Your task to perform on an android device: turn on translation in the chrome app Image 0: 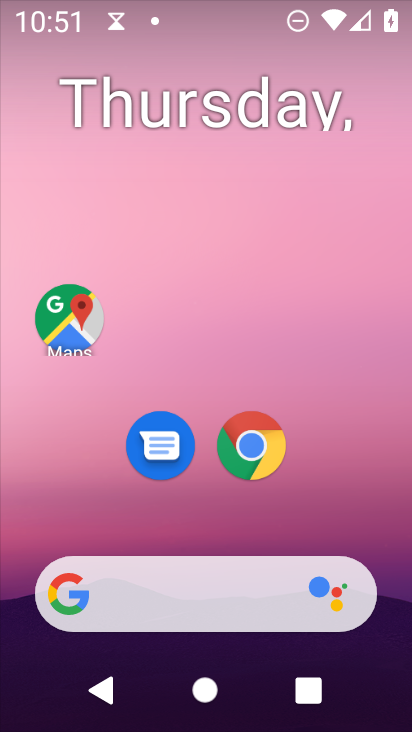
Step 0: click (244, 454)
Your task to perform on an android device: turn on translation in the chrome app Image 1: 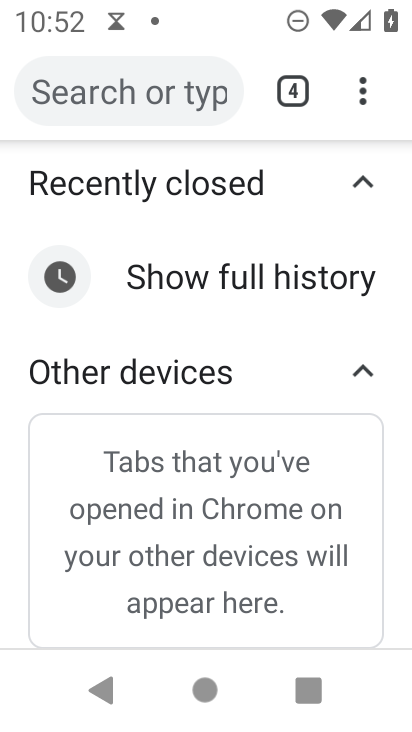
Step 1: click (362, 104)
Your task to perform on an android device: turn on translation in the chrome app Image 2: 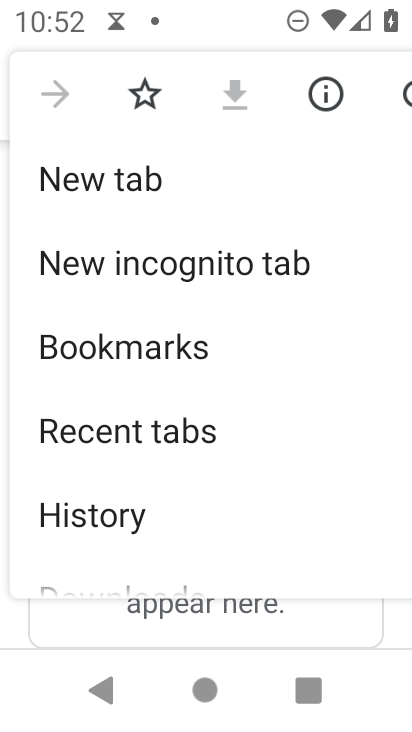
Step 2: drag from (96, 530) to (97, 171)
Your task to perform on an android device: turn on translation in the chrome app Image 3: 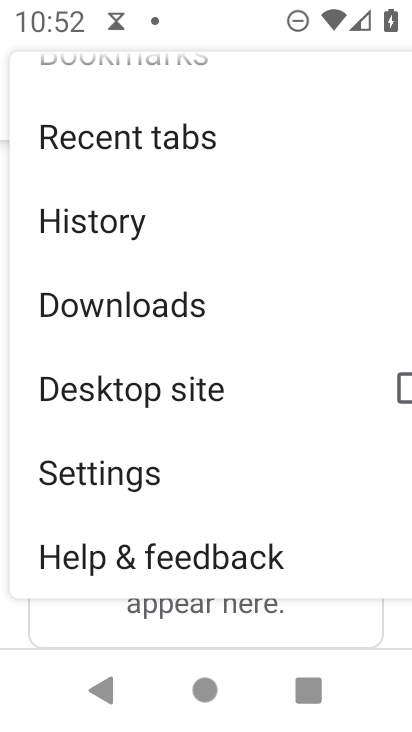
Step 3: click (98, 471)
Your task to perform on an android device: turn on translation in the chrome app Image 4: 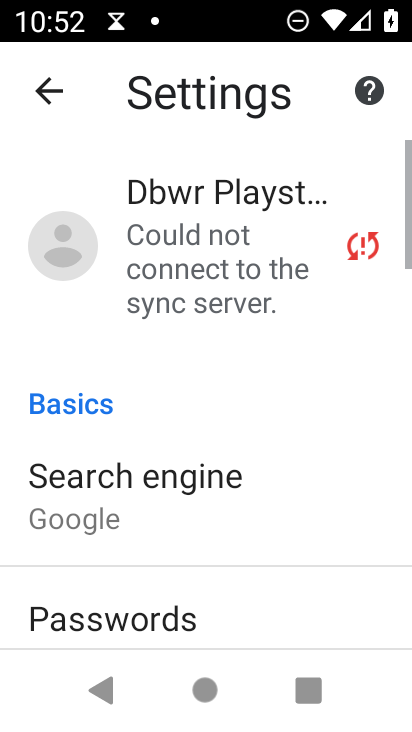
Step 4: drag from (154, 613) to (160, 129)
Your task to perform on an android device: turn on translation in the chrome app Image 5: 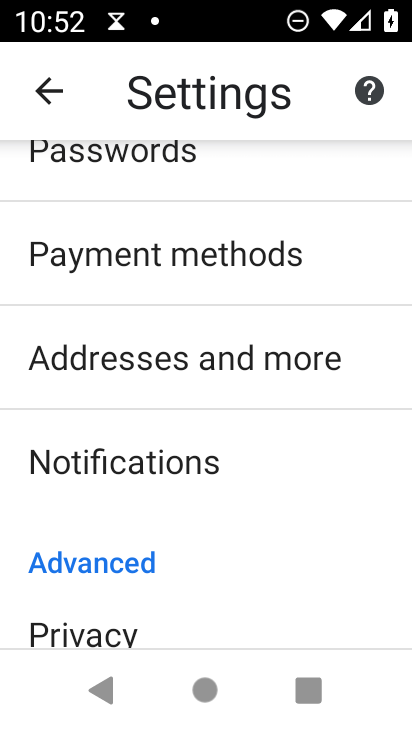
Step 5: drag from (210, 593) to (205, 153)
Your task to perform on an android device: turn on translation in the chrome app Image 6: 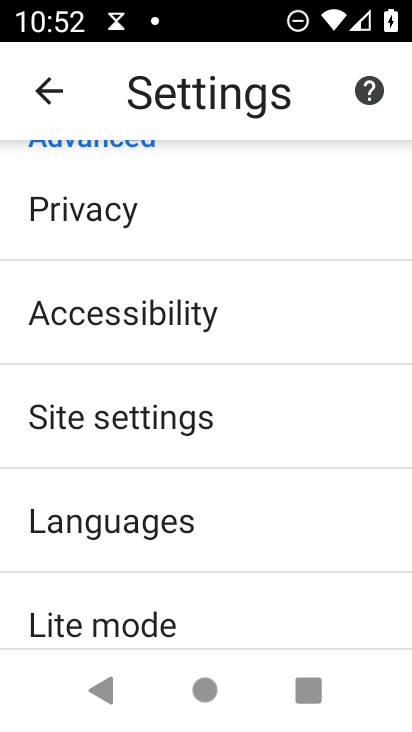
Step 6: click (130, 521)
Your task to perform on an android device: turn on translation in the chrome app Image 7: 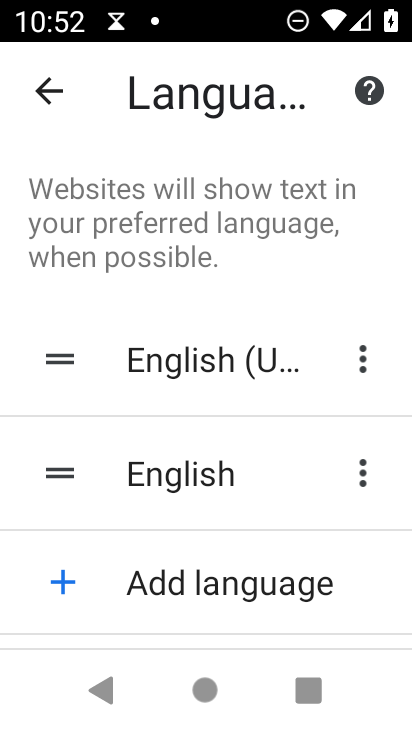
Step 7: task complete